Your task to perform on an android device: stop showing notifications on the lock screen Image 0: 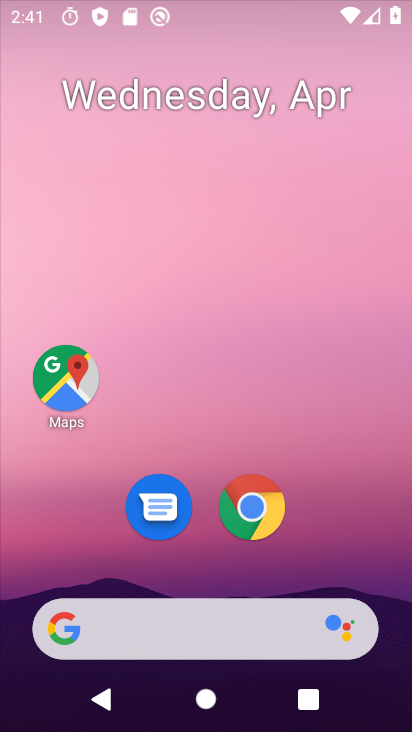
Step 0: drag from (224, 503) to (223, 299)
Your task to perform on an android device: stop showing notifications on the lock screen Image 1: 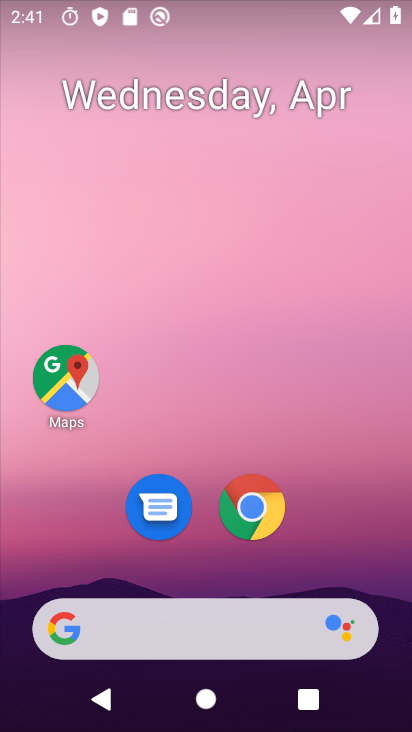
Step 1: drag from (220, 640) to (203, 214)
Your task to perform on an android device: stop showing notifications on the lock screen Image 2: 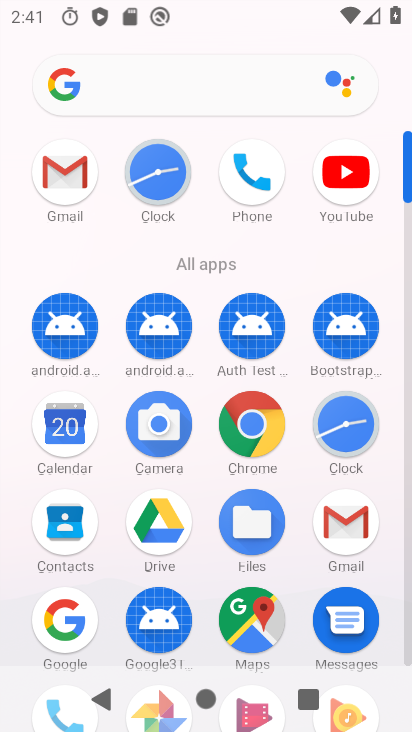
Step 2: drag from (198, 653) to (213, 28)
Your task to perform on an android device: stop showing notifications on the lock screen Image 3: 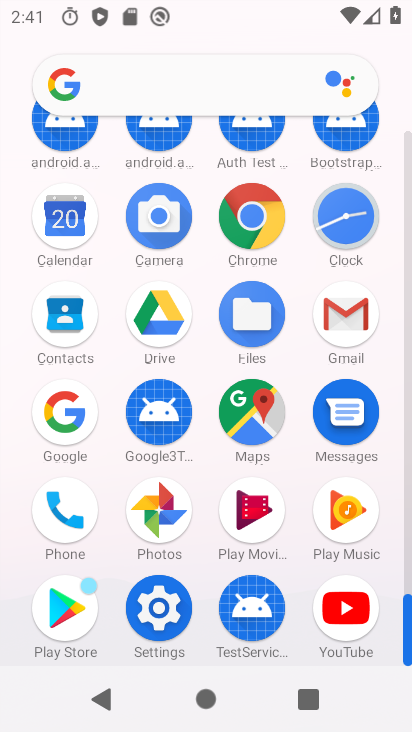
Step 3: click (173, 612)
Your task to perform on an android device: stop showing notifications on the lock screen Image 4: 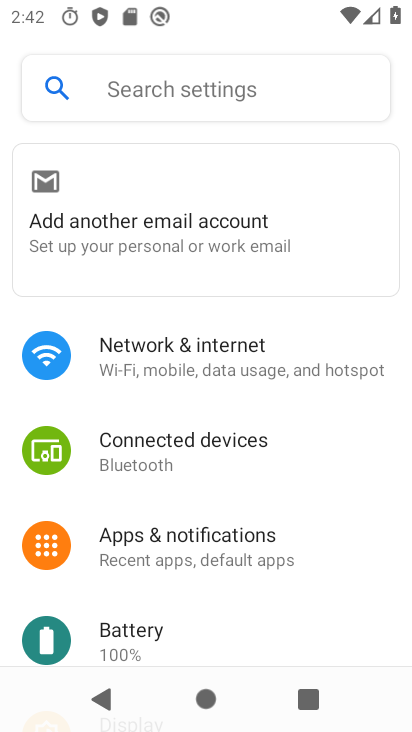
Step 4: click (194, 543)
Your task to perform on an android device: stop showing notifications on the lock screen Image 5: 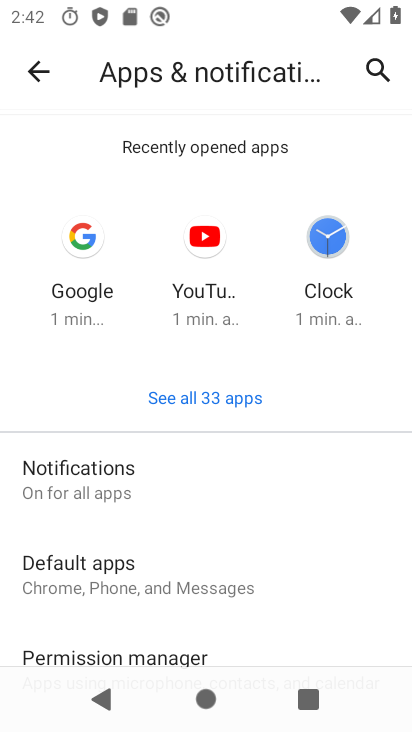
Step 5: drag from (119, 587) to (109, 204)
Your task to perform on an android device: stop showing notifications on the lock screen Image 6: 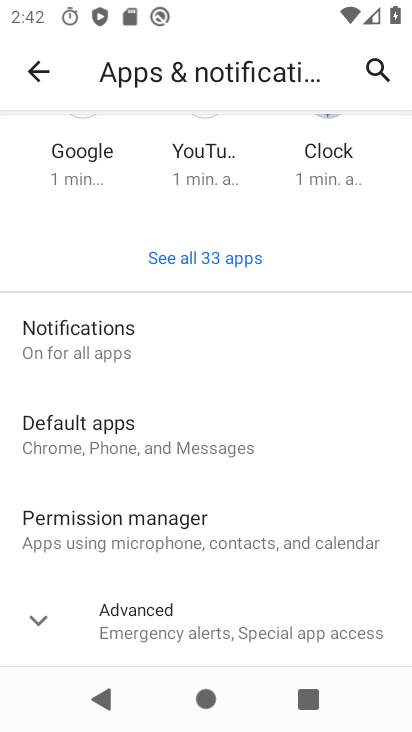
Step 6: click (160, 594)
Your task to perform on an android device: stop showing notifications on the lock screen Image 7: 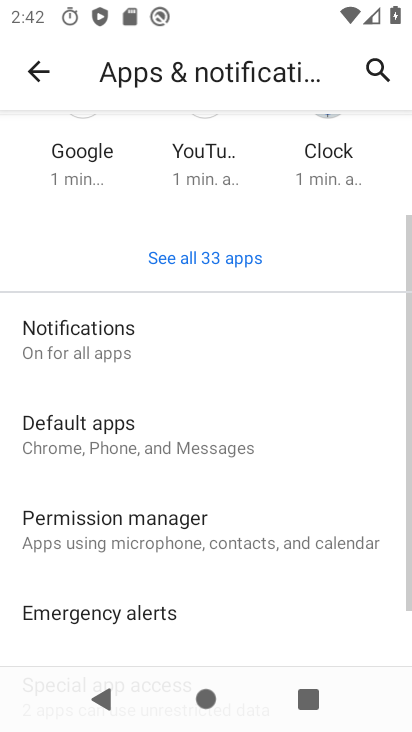
Step 7: drag from (217, 544) to (199, 48)
Your task to perform on an android device: stop showing notifications on the lock screen Image 8: 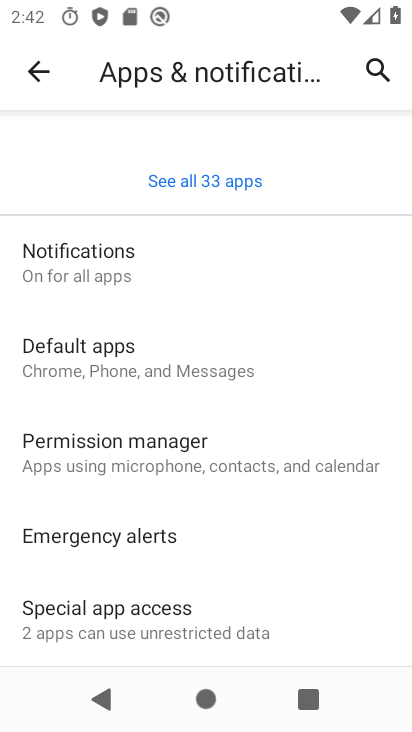
Step 8: click (106, 244)
Your task to perform on an android device: stop showing notifications on the lock screen Image 9: 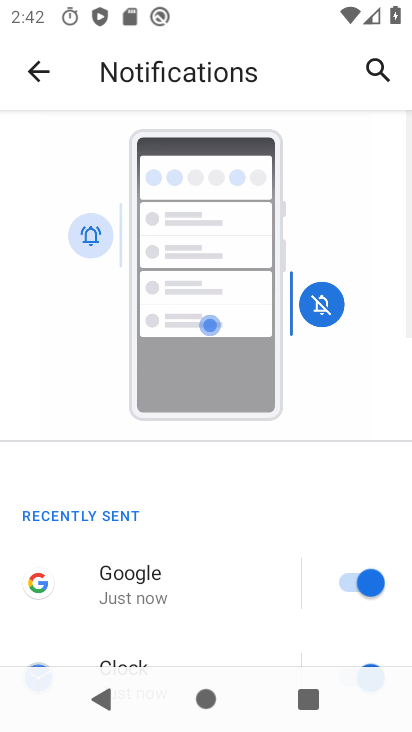
Step 9: drag from (212, 584) to (199, 3)
Your task to perform on an android device: stop showing notifications on the lock screen Image 10: 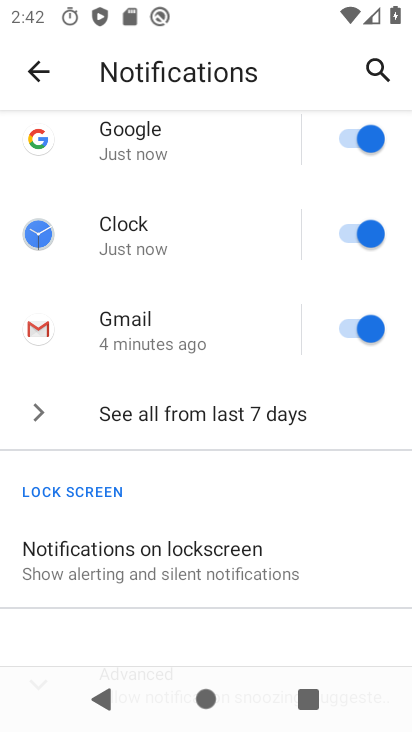
Step 10: click (220, 584)
Your task to perform on an android device: stop showing notifications on the lock screen Image 11: 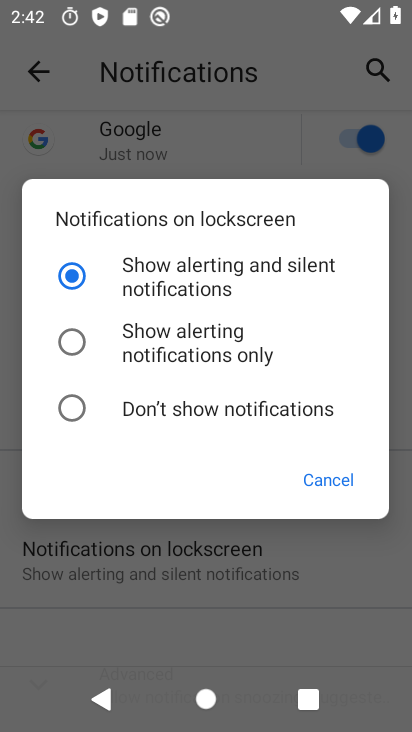
Step 11: click (241, 405)
Your task to perform on an android device: stop showing notifications on the lock screen Image 12: 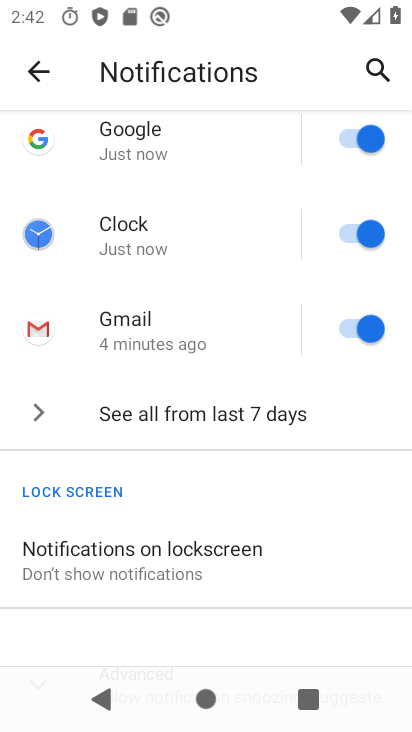
Step 12: task complete